Your task to perform on an android device: open a new tab in the chrome app Image 0: 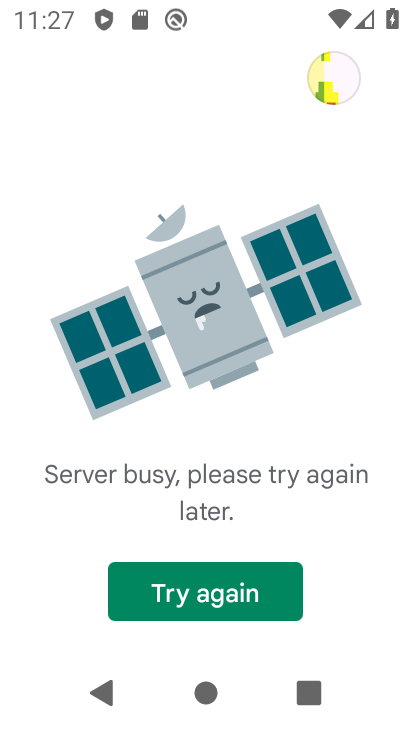
Step 0: press home button
Your task to perform on an android device: open a new tab in the chrome app Image 1: 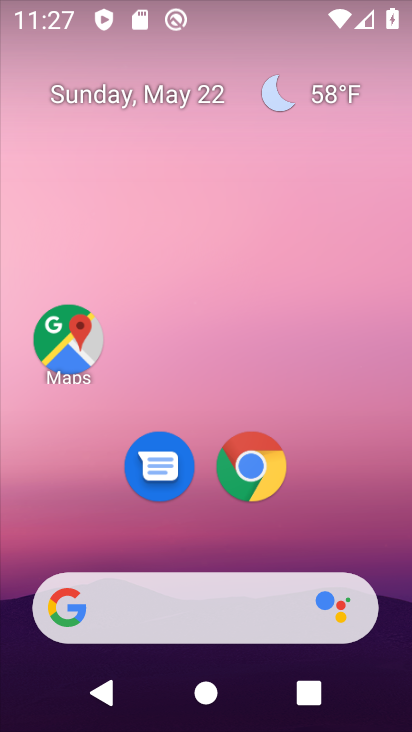
Step 1: click (250, 469)
Your task to perform on an android device: open a new tab in the chrome app Image 2: 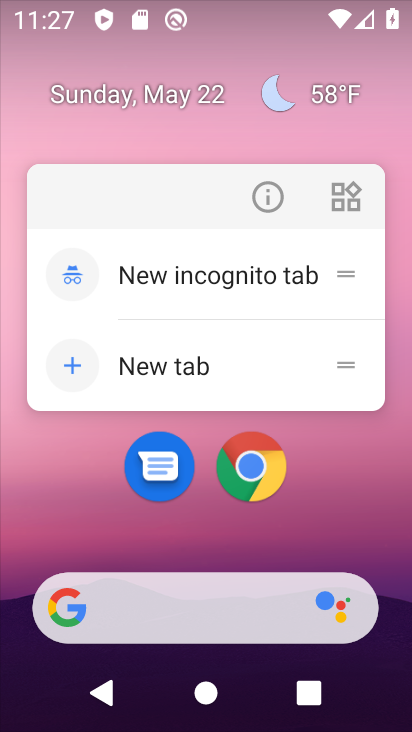
Step 2: click (253, 463)
Your task to perform on an android device: open a new tab in the chrome app Image 3: 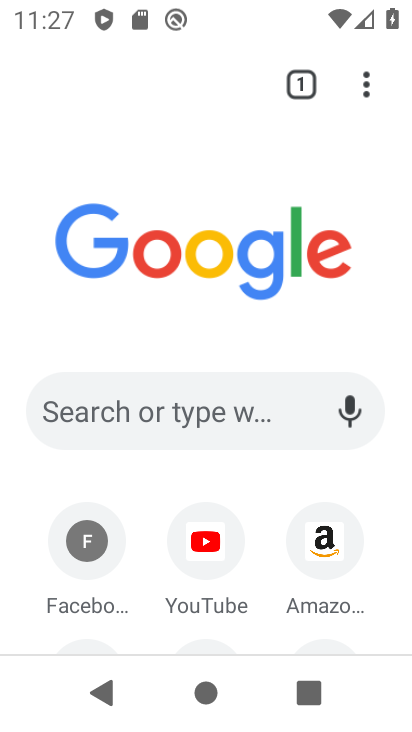
Step 3: click (308, 88)
Your task to perform on an android device: open a new tab in the chrome app Image 4: 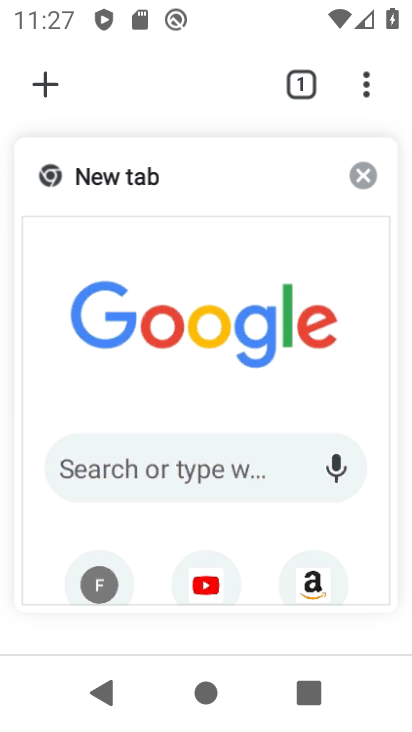
Step 4: click (38, 88)
Your task to perform on an android device: open a new tab in the chrome app Image 5: 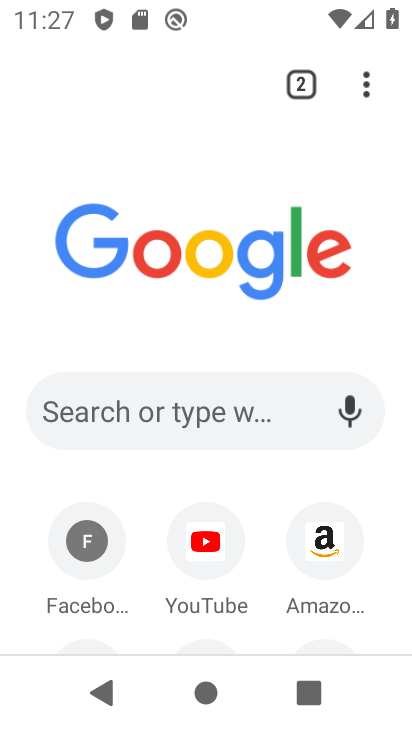
Step 5: task complete